Your task to perform on an android device: uninstall "PUBG MOBILE" Image 0: 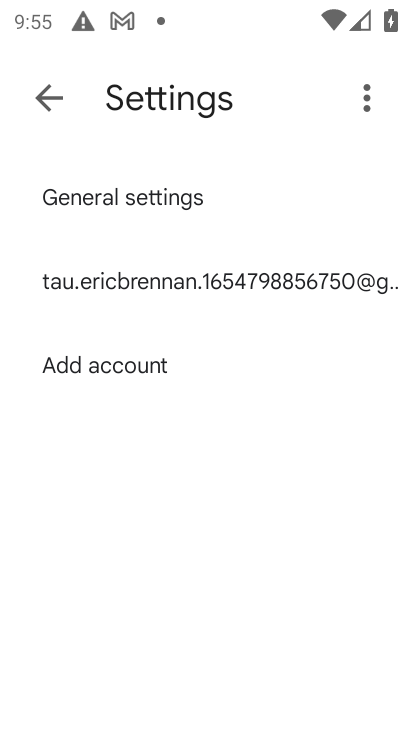
Step 0: press home button
Your task to perform on an android device: uninstall "PUBG MOBILE" Image 1: 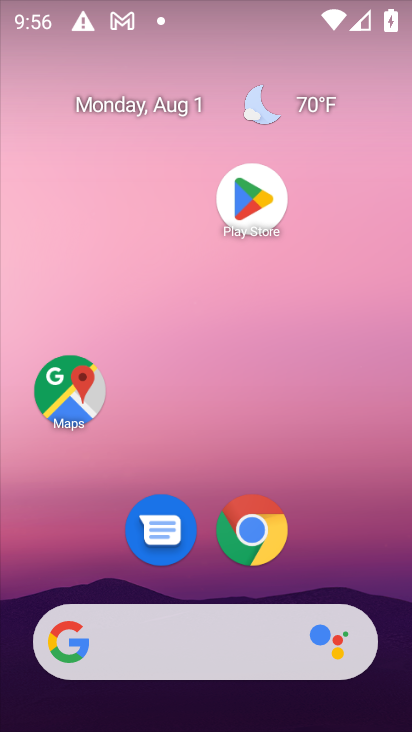
Step 1: click (247, 195)
Your task to perform on an android device: uninstall "PUBG MOBILE" Image 2: 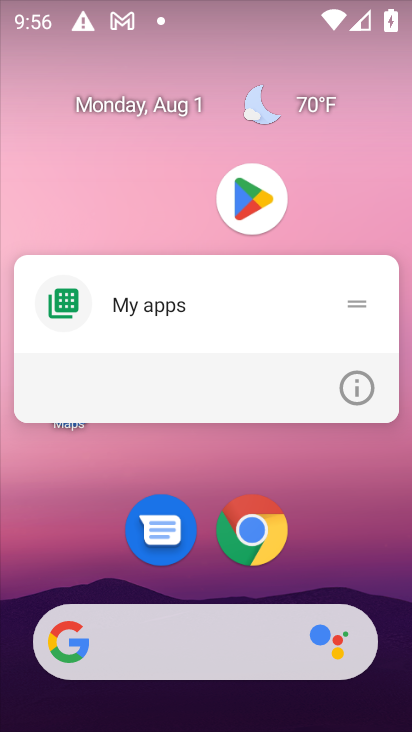
Step 2: click (247, 195)
Your task to perform on an android device: uninstall "PUBG MOBILE" Image 3: 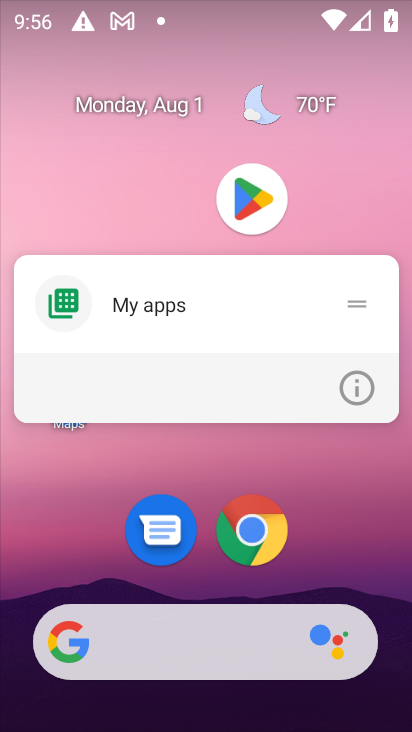
Step 3: click (247, 195)
Your task to perform on an android device: uninstall "PUBG MOBILE" Image 4: 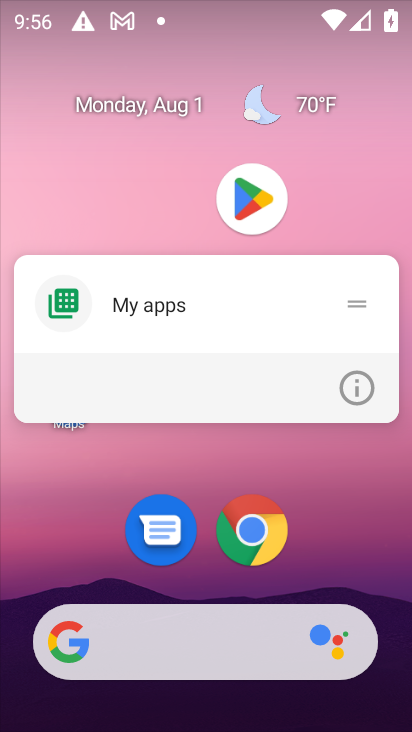
Step 4: click (269, 186)
Your task to perform on an android device: uninstall "PUBG MOBILE" Image 5: 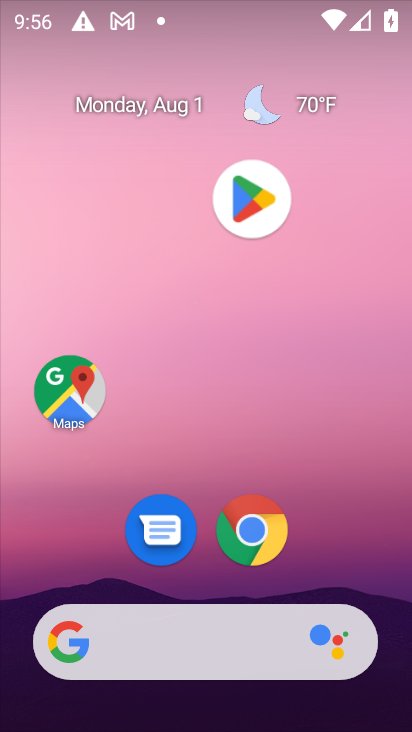
Step 5: click (269, 186)
Your task to perform on an android device: uninstall "PUBG MOBILE" Image 6: 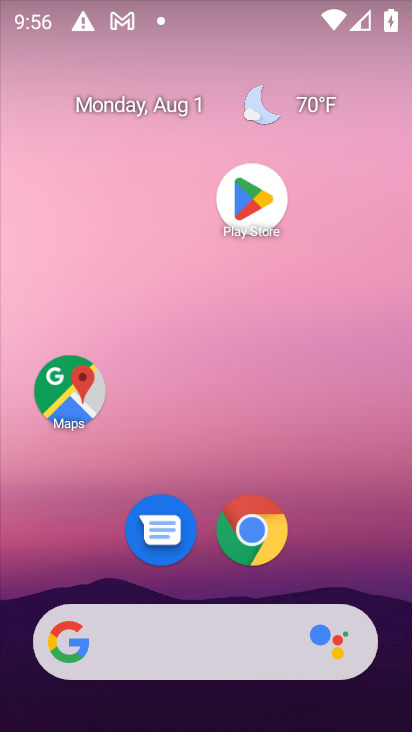
Step 6: click (211, 197)
Your task to perform on an android device: uninstall "PUBG MOBILE" Image 7: 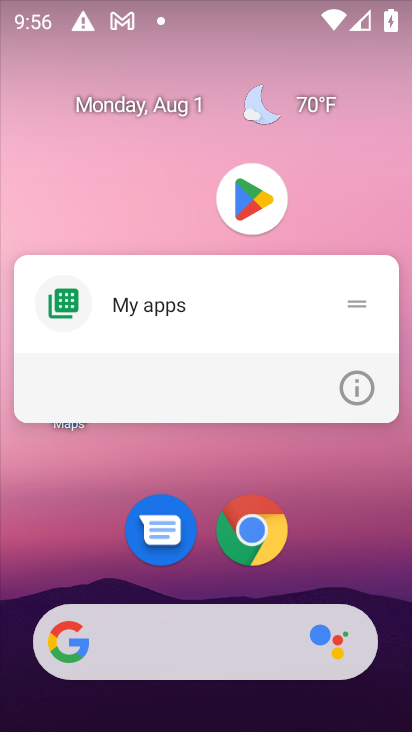
Step 7: click (237, 187)
Your task to perform on an android device: uninstall "PUBG MOBILE" Image 8: 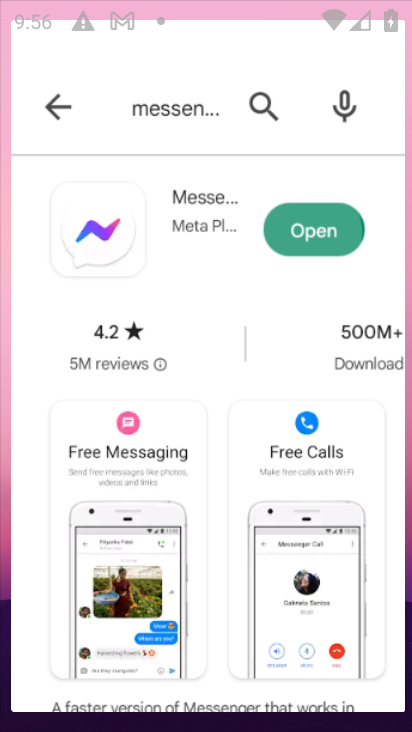
Step 8: click (274, 193)
Your task to perform on an android device: uninstall "PUBG MOBILE" Image 9: 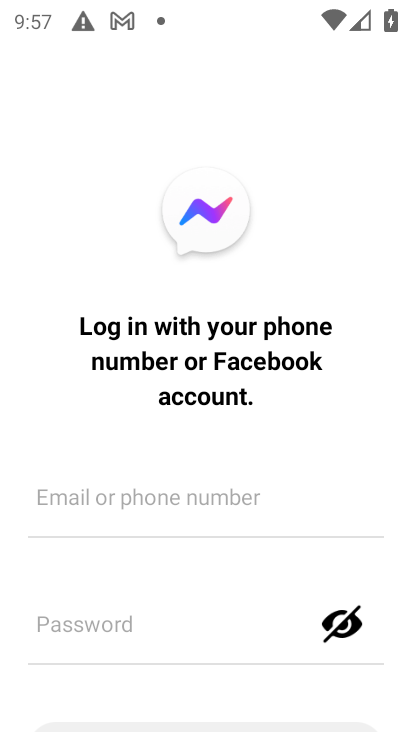
Step 9: press home button
Your task to perform on an android device: uninstall "PUBG MOBILE" Image 10: 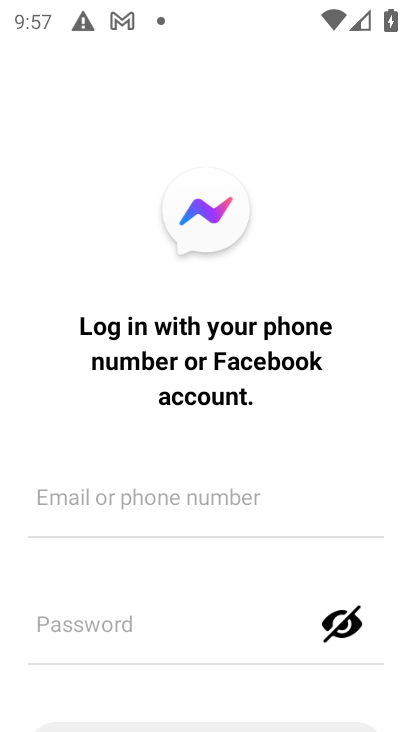
Step 10: press home button
Your task to perform on an android device: uninstall "PUBG MOBILE" Image 11: 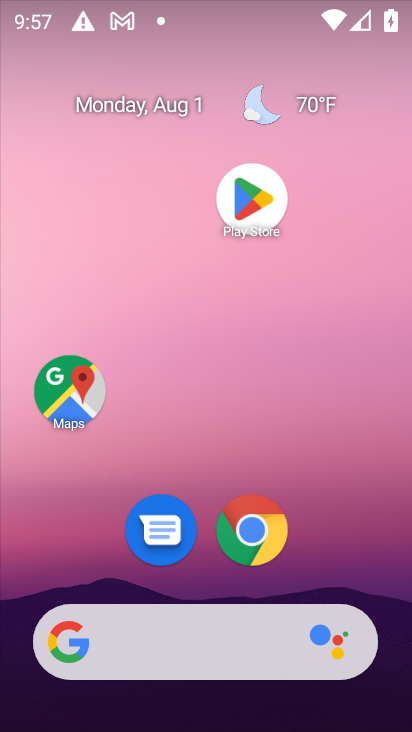
Step 11: click (251, 190)
Your task to perform on an android device: uninstall "PUBG MOBILE" Image 12: 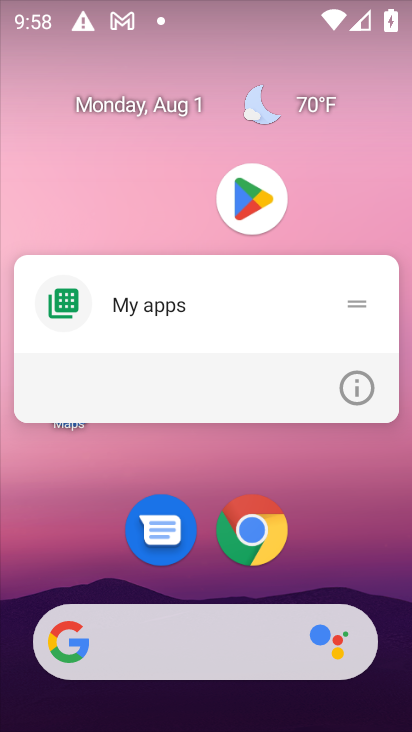
Step 12: click (251, 190)
Your task to perform on an android device: uninstall "PUBG MOBILE" Image 13: 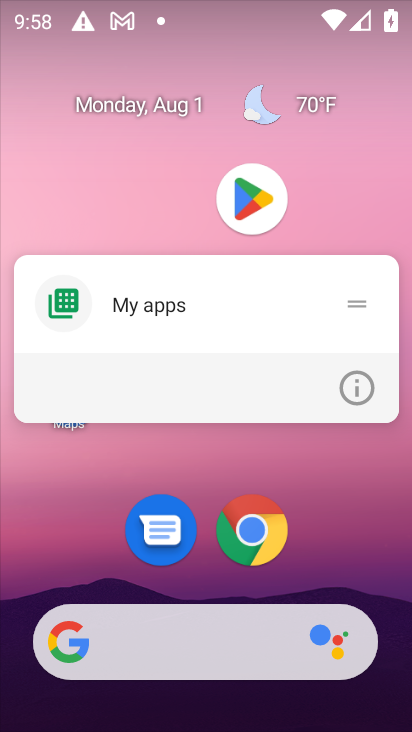
Step 13: click (242, 193)
Your task to perform on an android device: uninstall "PUBG MOBILE" Image 14: 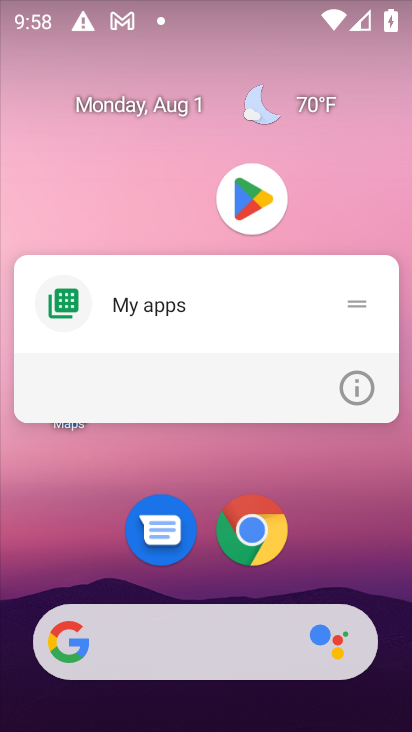
Step 14: click (242, 193)
Your task to perform on an android device: uninstall "PUBG MOBILE" Image 15: 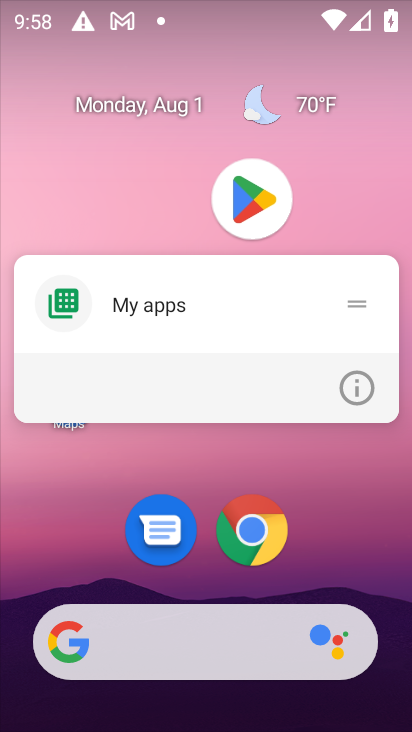
Step 15: click (242, 193)
Your task to perform on an android device: uninstall "PUBG MOBILE" Image 16: 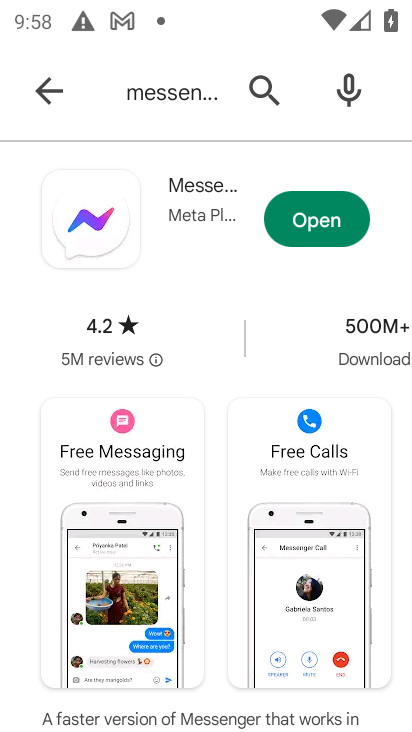
Step 16: click (266, 83)
Your task to perform on an android device: uninstall "PUBG MOBILE" Image 17: 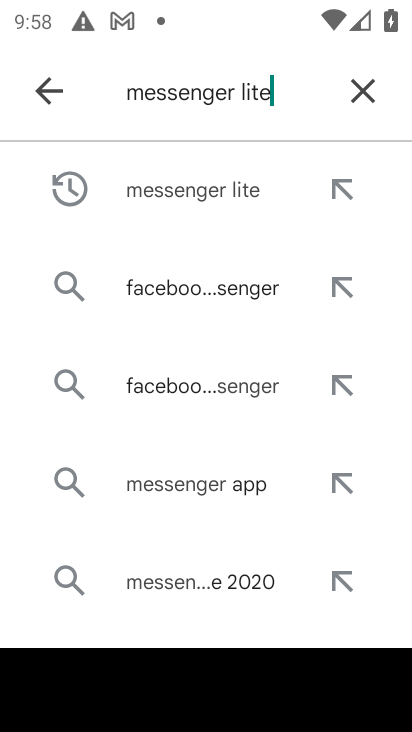
Step 17: click (356, 88)
Your task to perform on an android device: uninstall "PUBG MOBILE" Image 18: 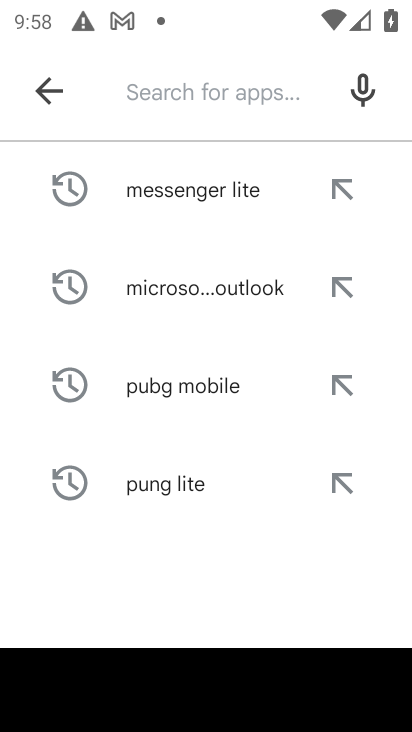
Step 18: click (258, 390)
Your task to perform on an android device: uninstall "PUBG MOBILE" Image 19: 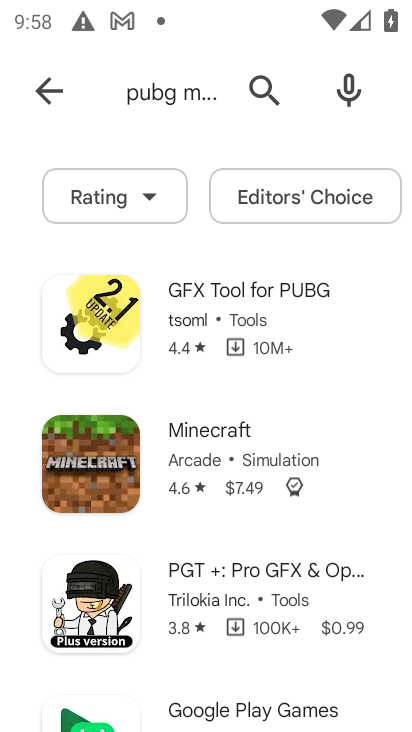
Step 19: click (258, 80)
Your task to perform on an android device: uninstall "PUBG MOBILE" Image 20: 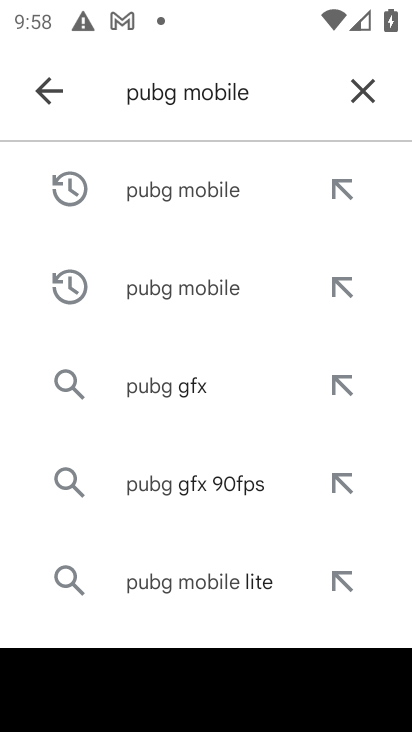
Step 20: click (349, 89)
Your task to perform on an android device: uninstall "PUBG MOBILE" Image 21: 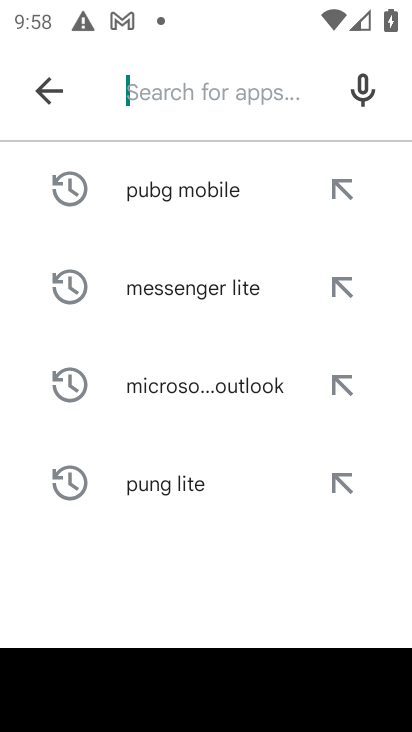
Step 21: type "PUBG MOBILE"
Your task to perform on an android device: uninstall "PUBG MOBILE" Image 22: 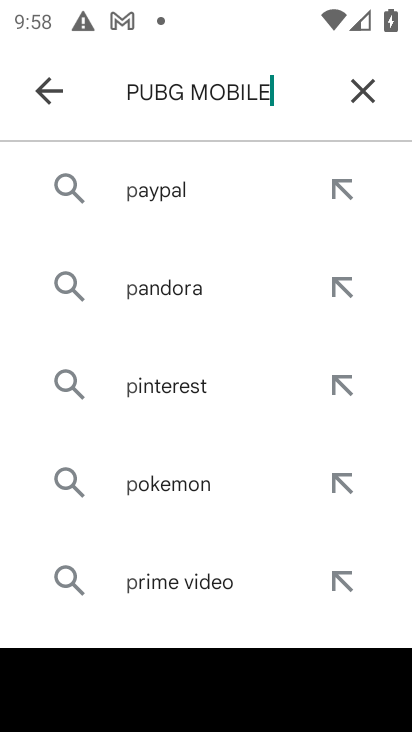
Step 22: type ""
Your task to perform on an android device: uninstall "PUBG MOBILE" Image 23: 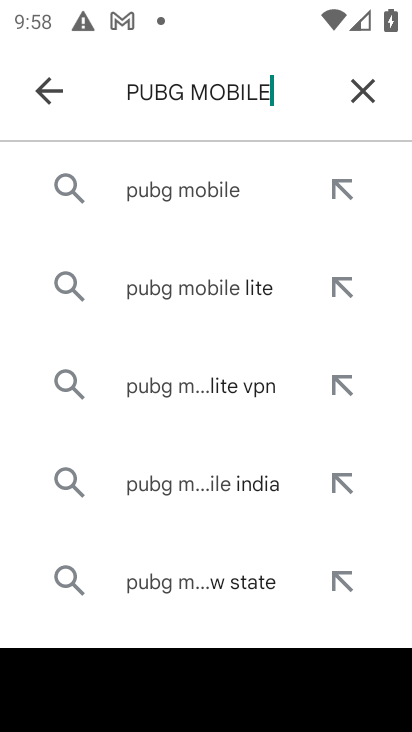
Step 23: press enter
Your task to perform on an android device: uninstall "PUBG MOBILE" Image 24: 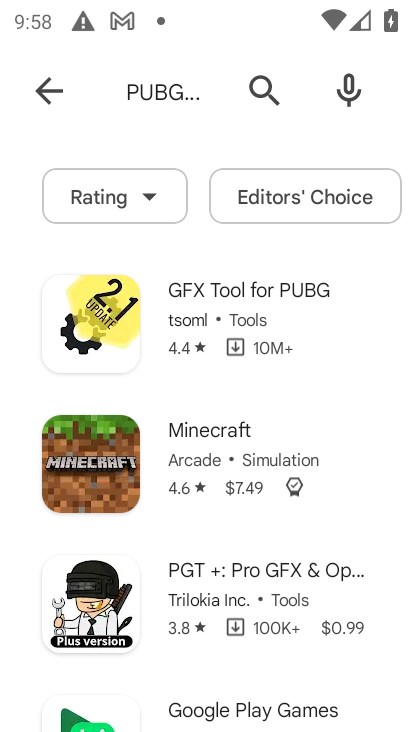
Step 24: task complete